Your task to perform on an android device: Go to Google maps Image 0: 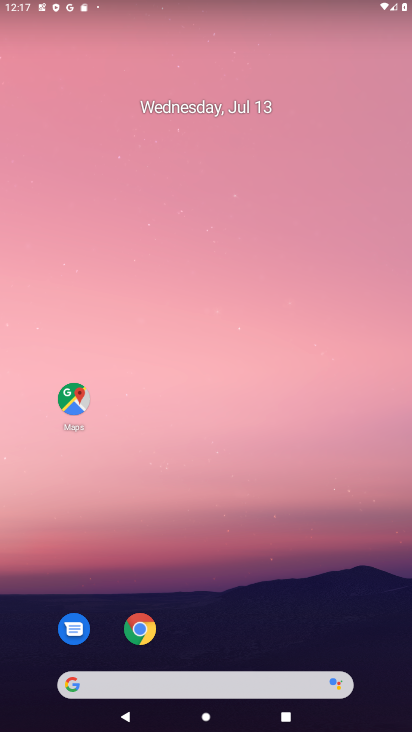
Step 0: click (185, 222)
Your task to perform on an android device: Go to Google maps Image 1: 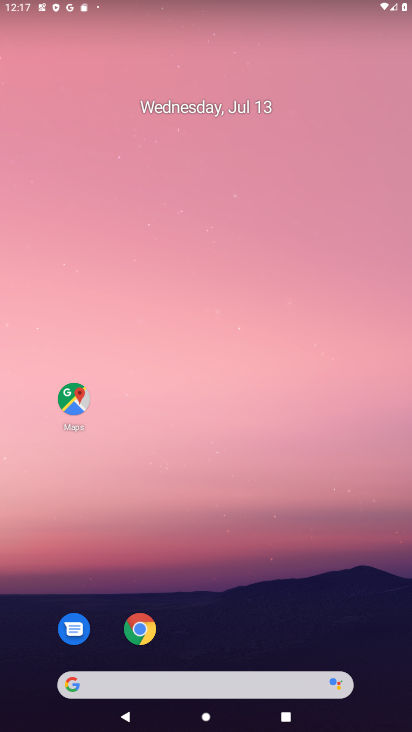
Step 1: drag from (276, 662) to (263, 374)
Your task to perform on an android device: Go to Google maps Image 2: 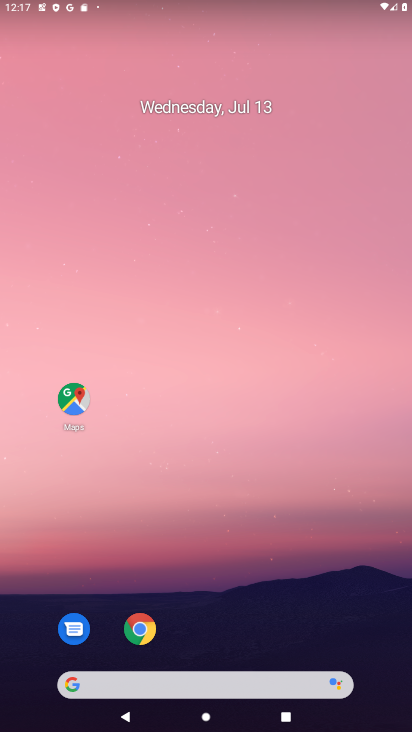
Step 2: drag from (232, 642) to (212, 337)
Your task to perform on an android device: Go to Google maps Image 3: 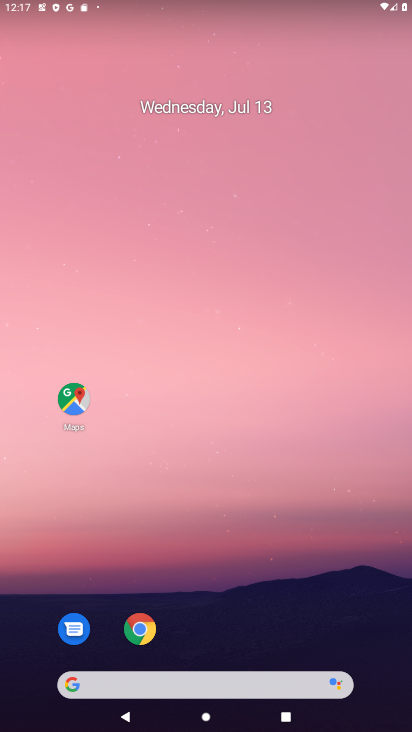
Step 3: drag from (196, 663) to (191, 260)
Your task to perform on an android device: Go to Google maps Image 4: 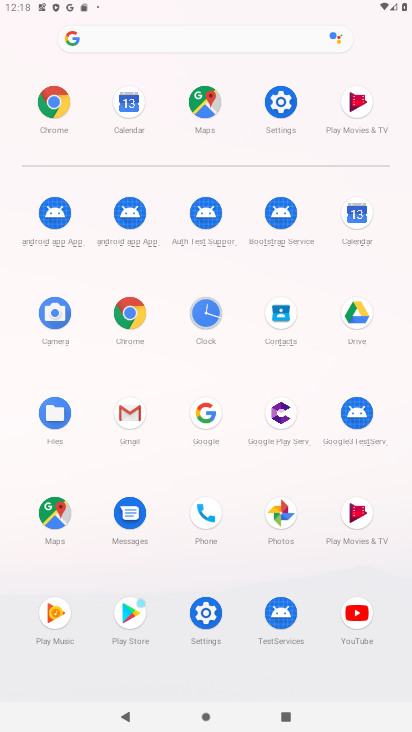
Step 4: click (54, 510)
Your task to perform on an android device: Go to Google maps Image 5: 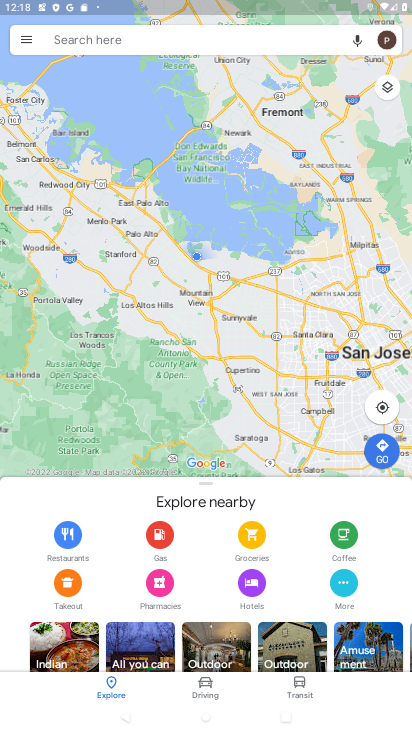
Step 5: task complete